Your task to perform on an android device: manage bookmarks in the chrome app Image 0: 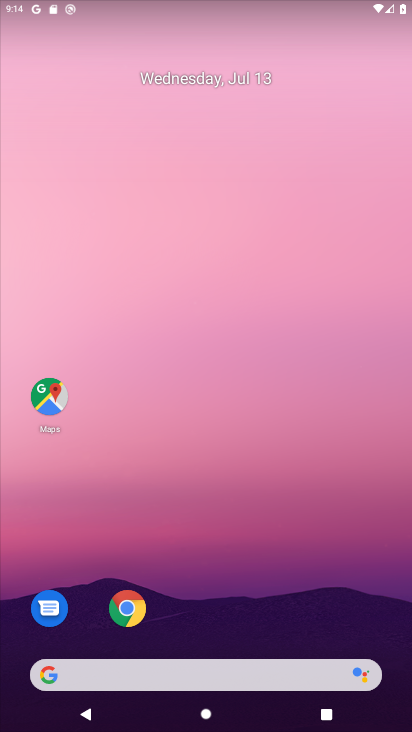
Step 0: drag from (289, 640) to (104, 6)
Your task to perform on an android device: manage bookmarks in the chrome app Image 1: 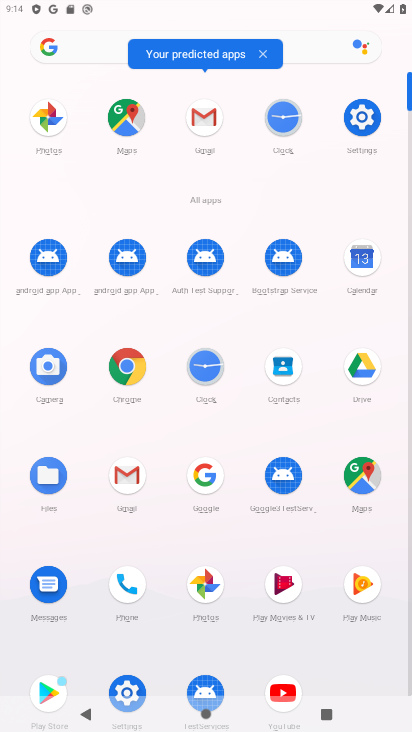
Step 1: click (128, 368)
Your task to perform on an android device: manage bookmarks in the chrome app Image 2: 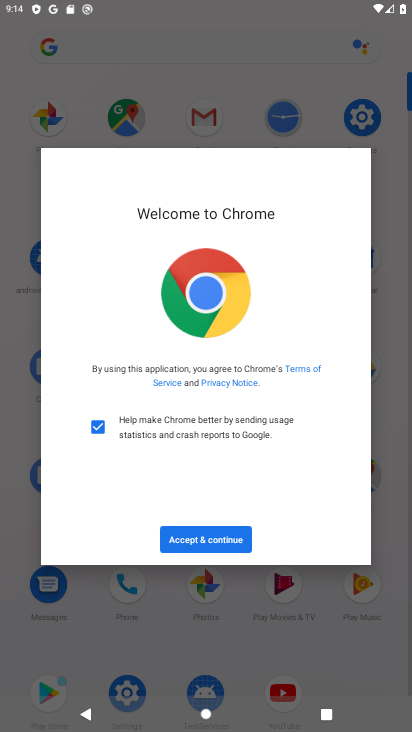
Step 2: click (211, 543)
Your task to perform on an android device: manage bookmarks in the chrome app Image 3: 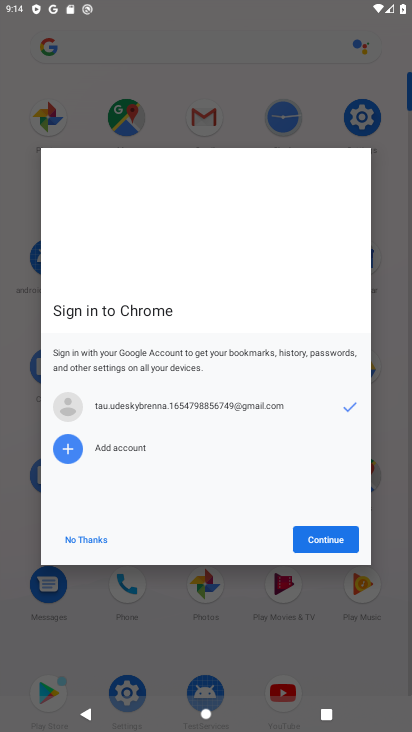
Step 3: click (97, 540)
Your task to perform on an android device: manage bookmarks in the chrome app Image 4: 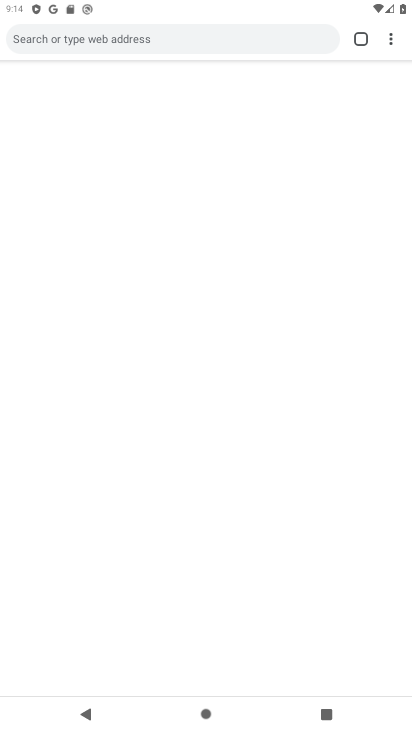
Step 4: task complete